Your task to perform on an android device: Go to Google Image 0: 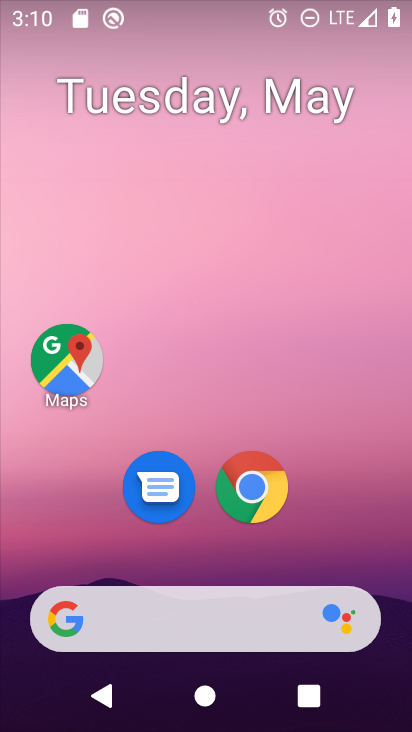
Step 0: click (77, 625)
Your task to perform on an android device: Go to Google Image 1: 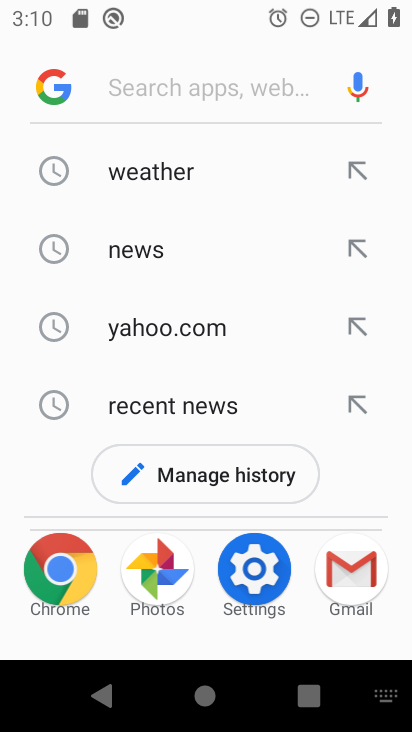
Step 1: click (43, 88)
Your task to perform on an android device: Go to Google Image 2: 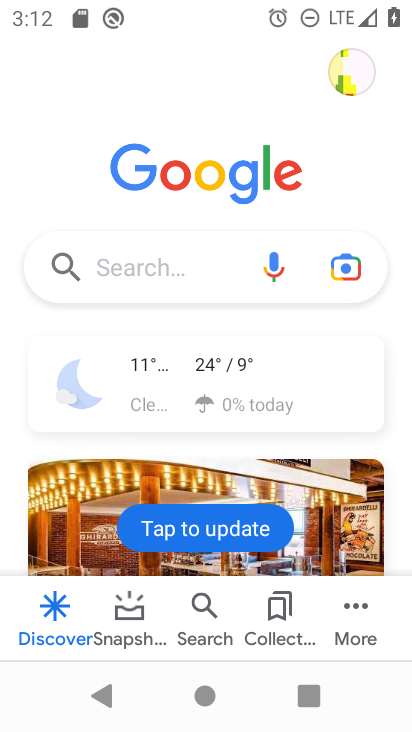
Step 2: task complete